Your task to perform on an android device: visit the assistant section in the google photos Image 0: 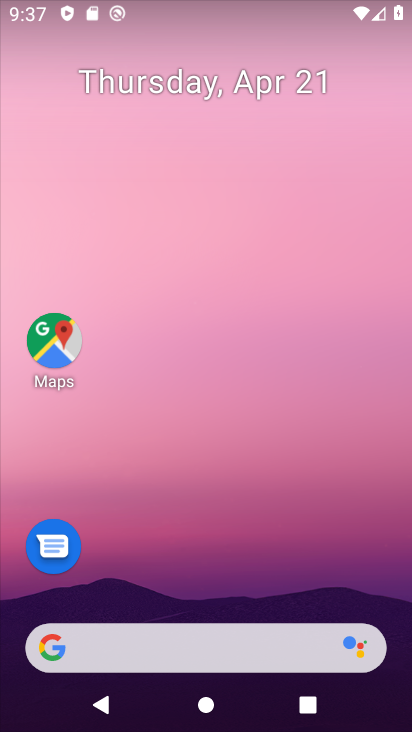
Step 0: drag from (188, 640) to (262, 131)
Your task to perform on an android device: visit the assistant section in the google photos Image 1: 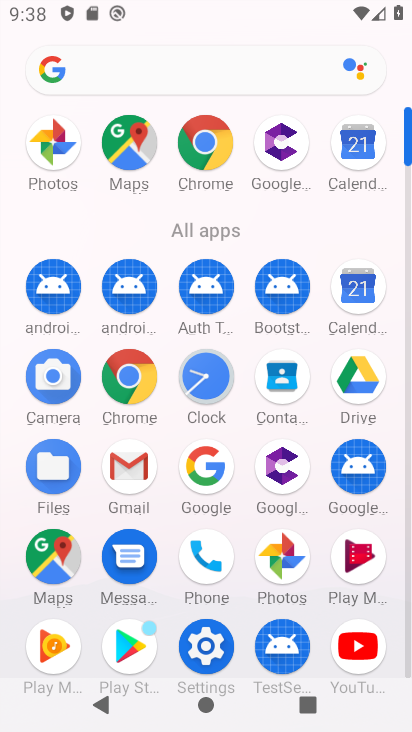
Step 1: click (287, 549)
Your task to perform on an android device: visit the assistant section in the google photos Image 2: 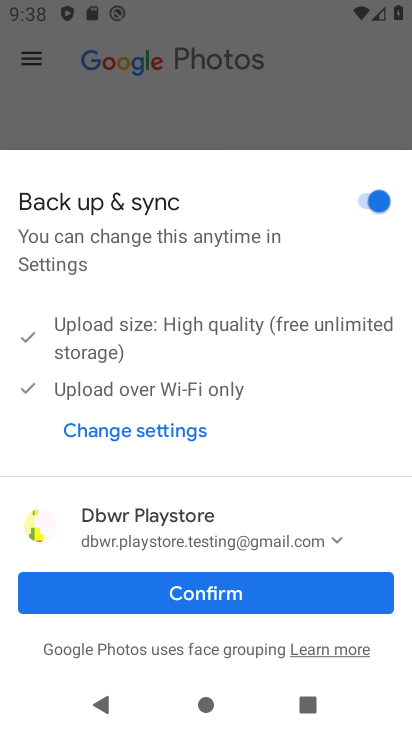
Step 2: click (252, 603)
Your task to perform on an android device: visit the assistant section in the google photos Image 3: 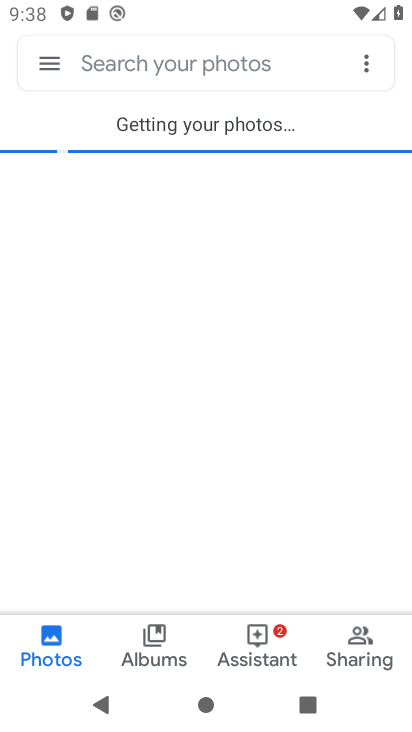
Step 3: click (258, 648)
Your task to perform on an android device: visit the assistant section in the google photos Image 4: 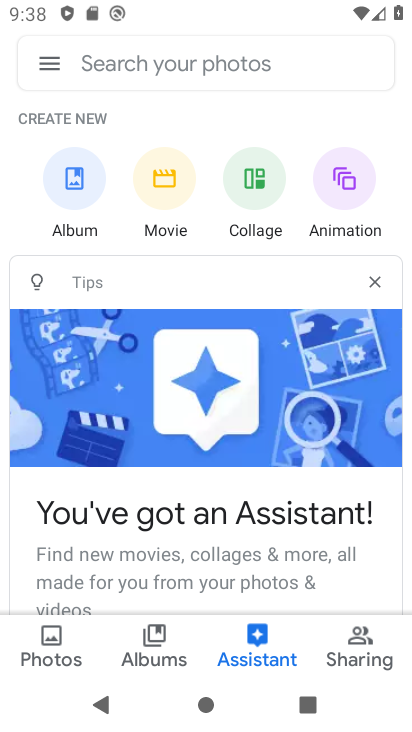
Step 4: task complete